Your task to perform on an android device: change the upload size in google photos Image 0: 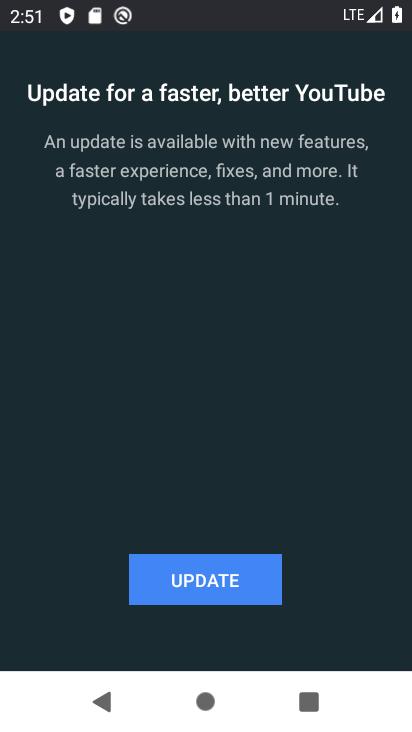
Step 0: press home button
Your task to perform on an android device: change the upload size in google photos Image 1: 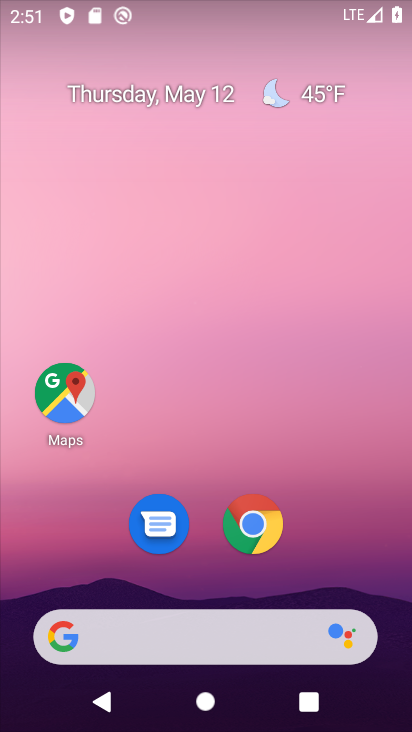
Step 1: drag from (211, 348) to (213, 44)
Your task to perform on an android device: change the upload size in google photos Image 2: 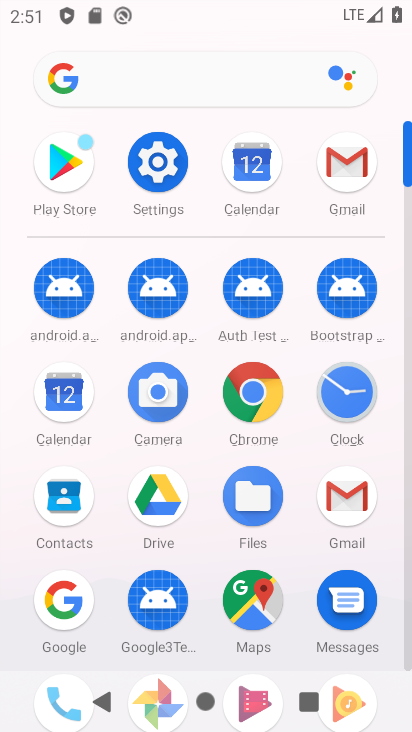
Step 2: drag from (214, 469) to (209, 298)
Your task to perform on an android device: change the upload size in google photos Image 3: 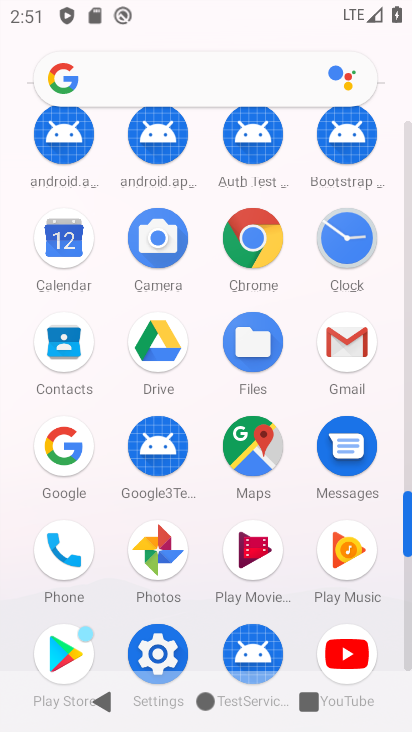
Step 3: click (175, 530)
Your task to perform on an android device: change the upload size in google photos Image 4: 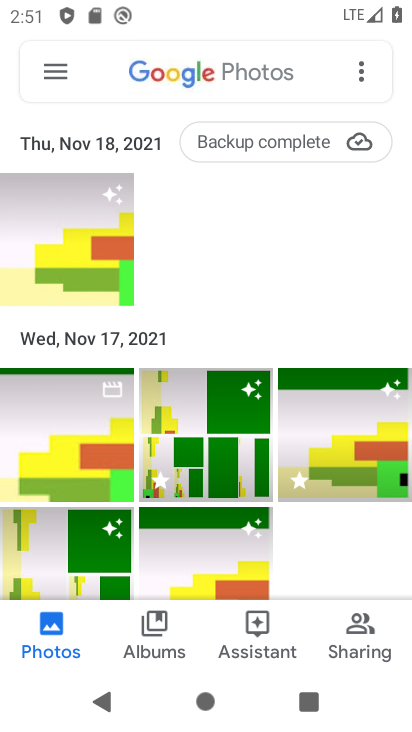
Step 4: click (48, 66)
Your task to perform on an android device: change the upload size in google photos Image 5: 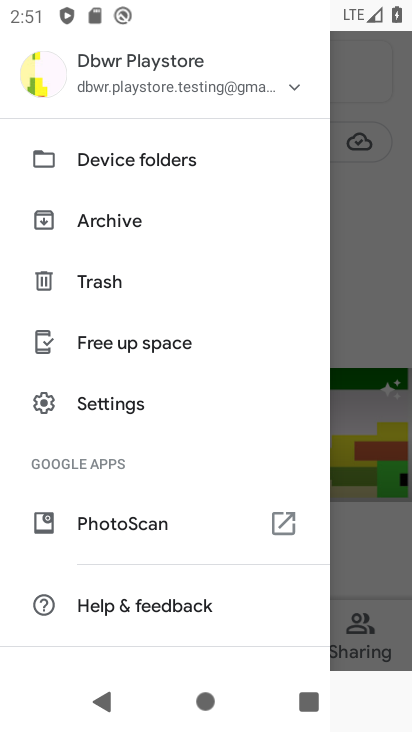
Step 5: click (135, 394)
Your task to perform on an android device: change the upload size in google photos Image 6: 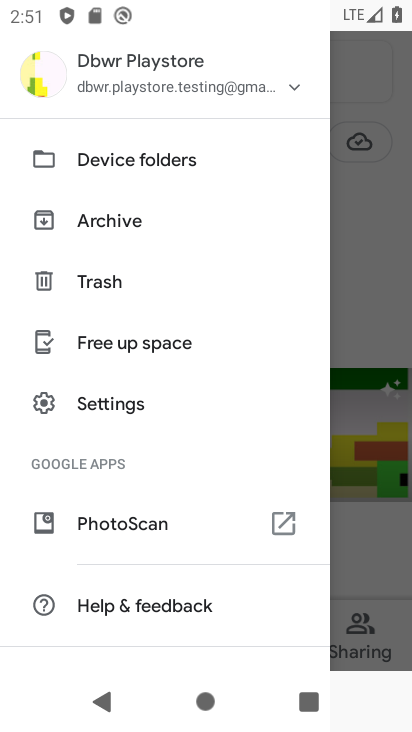
Step 6: click (122, 396)
Your task to perform on an android device: change the upload size in google photos Image 7: 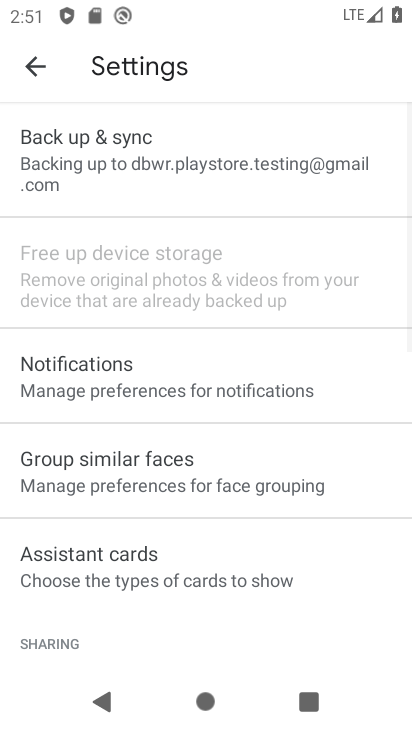
Step 7: click (219, 155)
Your task to perform on an android device: change the upload size in google photos Image 8: 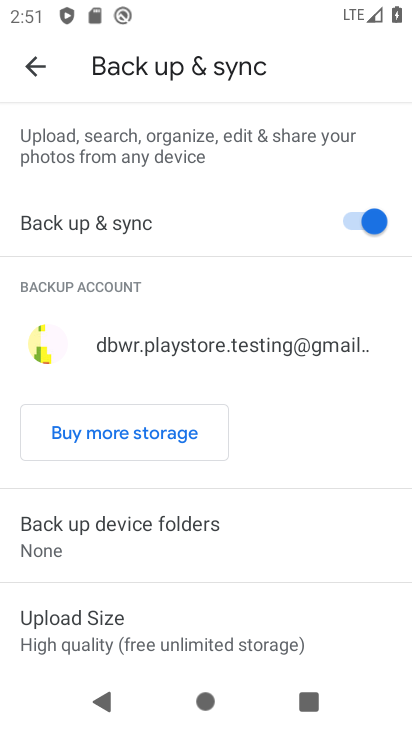
Step 8: click (128, 611)
Your task to perform on an android device: change the upload size in google photos Image 9: 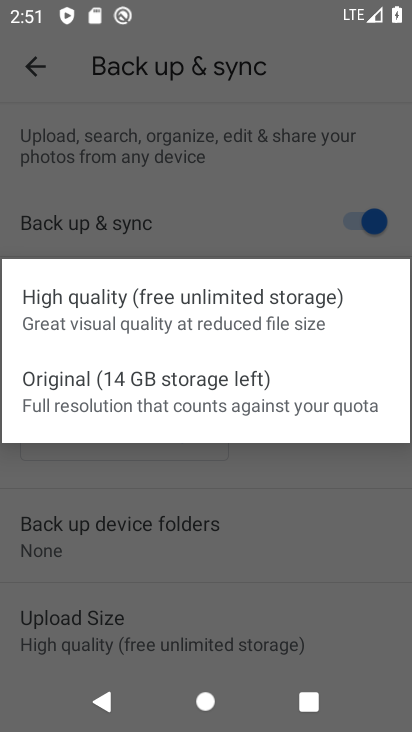
Step 9: click (219, 389)
Your task to perform on an android device: change the upload size in google photos Image 10: 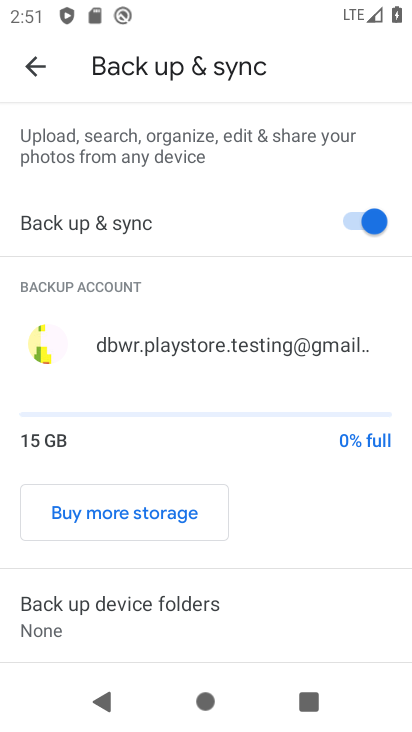
Step 10: task complete